Your task to perform on an android device: Search for desk lamps on article.com Image 0: 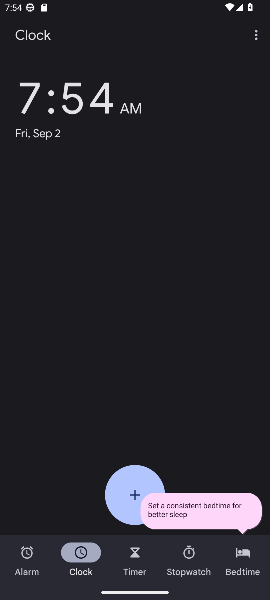
Step 0: press home button
Your task to perform on an android device: Search for desk lamps on article.com Image 1: 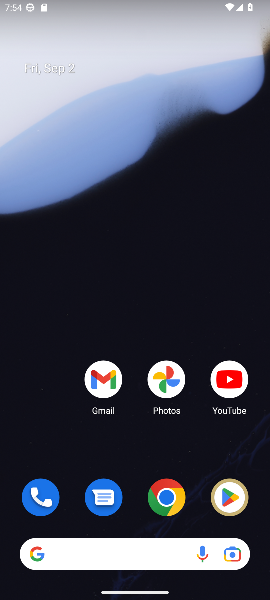
Step 1: click (111, 119)
Your task to perform on an android device: Search for desk lamps on article.com Image 2: 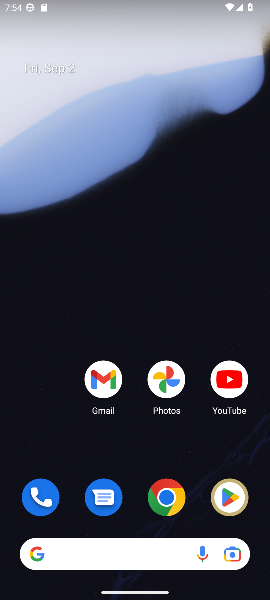
Step 2: drag from (115, 428) to (88, 46)
Your task to perform on an android device: Search for desk lamps on article.com Image 3: 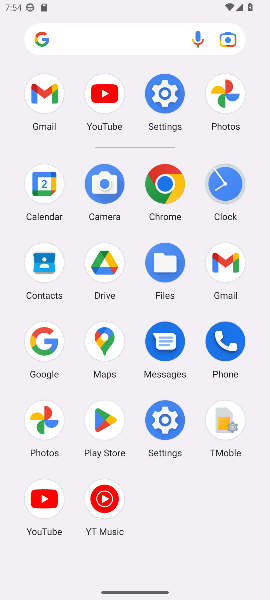
Step 3: click (36, 346)
Your task to perform on an android device: Search for desk lamps on article.com Image 4: 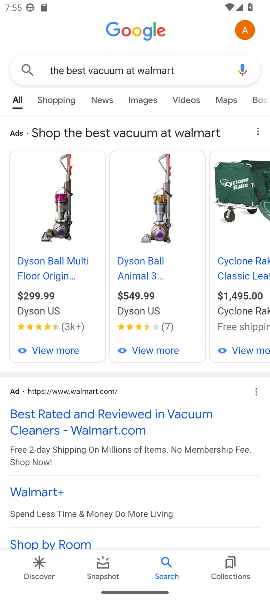
Step 4: click (187, 69)
Your task to perform on an android device: Search for desk lamps on article.com Image 5: 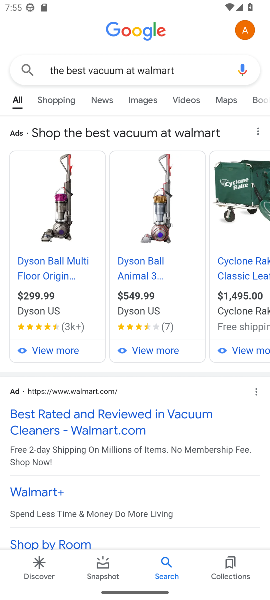
Step 5: click (187, 69)
Your task to perform on an android device: Search for desk lamps on article.com Image 6: 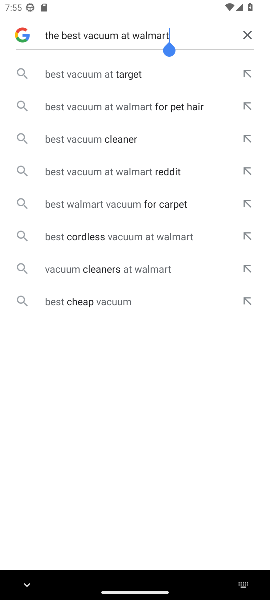
Step 6: click (248, 33)
Your task to perform on an android device: Search for desk lamps on article.com Image 7: 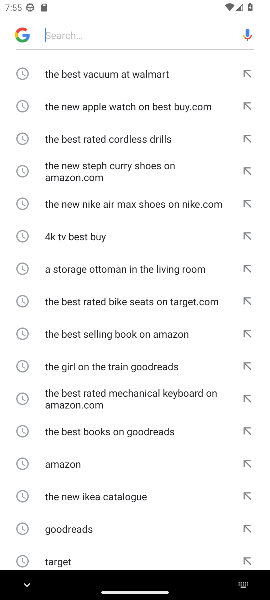
Step 7: type " desk lamps on article.com"
Your task to perform on an android device: Search for desk lamps on article.com Image 8: 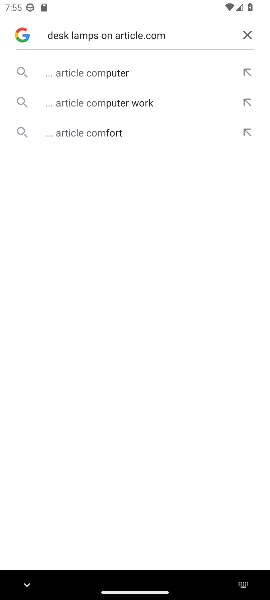
Step 8: click (108, 77)
Your task to perform on an android device: Search for desk lamps on article.com Image 9: 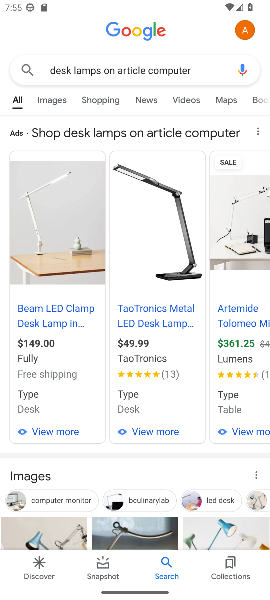
Step 9: click (142, 192)
Your task to perform on an android device: Search for desk lamps on article.com Image 10: 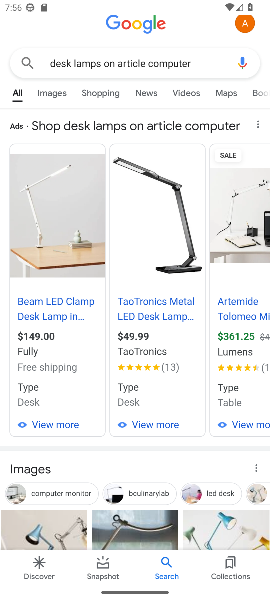
Step 10: task complete